Your task to perform on an android device: turn off translation in the chrome app Image 0: 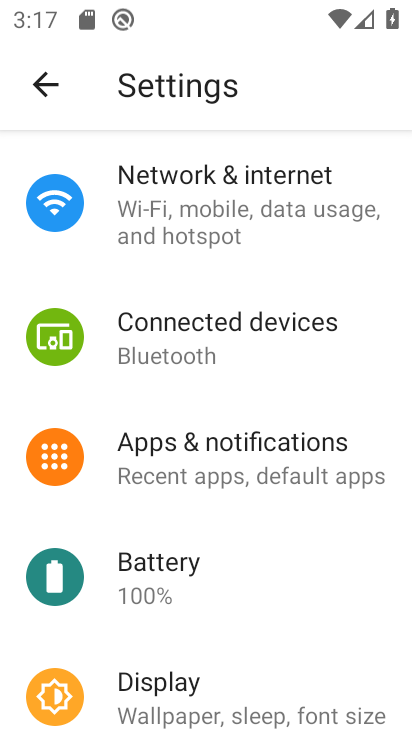
Step 0: press home button
Your task to perform on an android device: turn off translation in the chrome app Image 1: 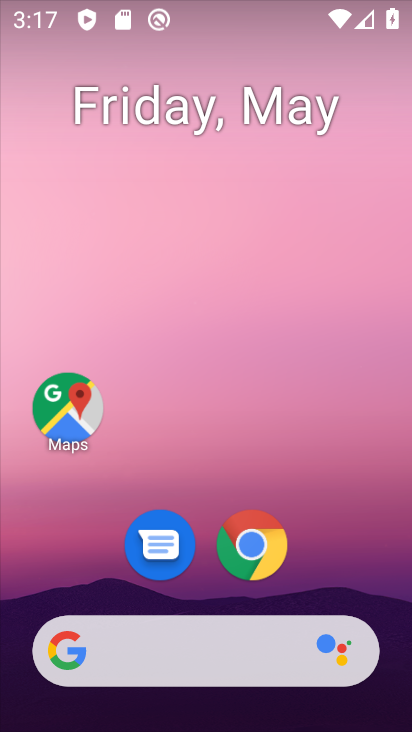
Step 1: click (259, 541)
Your task to perform on an android device: turn off translation in the chrome app Image 2: 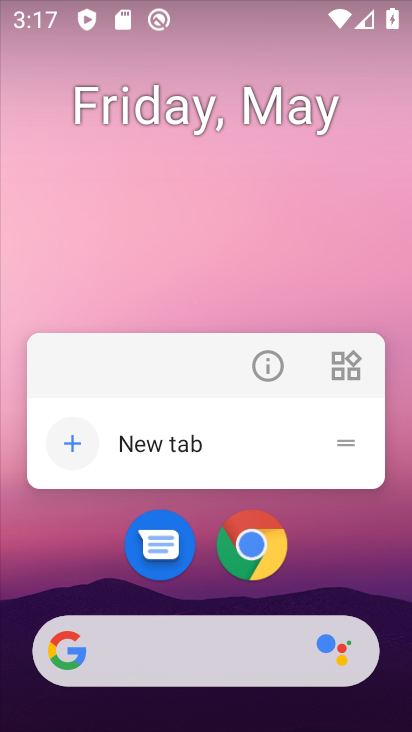
Step 2: click (253, 543)
Your task to perform on an android device: turn off translation in the chrome app Image 3: 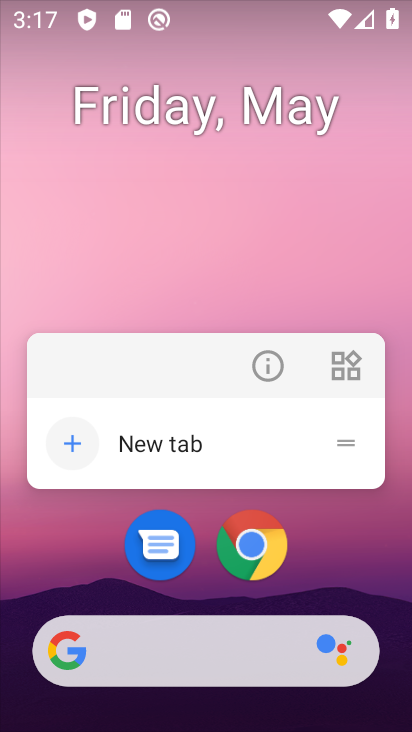
Step 3: click (251, 549)
Your task to perform on an android device: turn off translation in the chrome app Image 4: 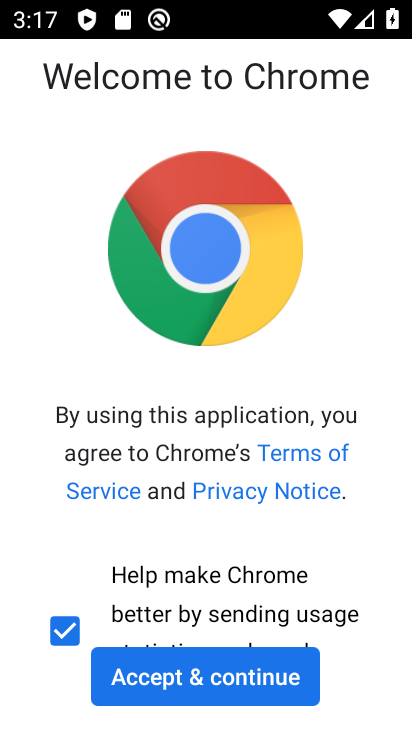
Step 4: click (175, 682)
Your task to perform on an android device: turn off translation in the chrome app Image 5: 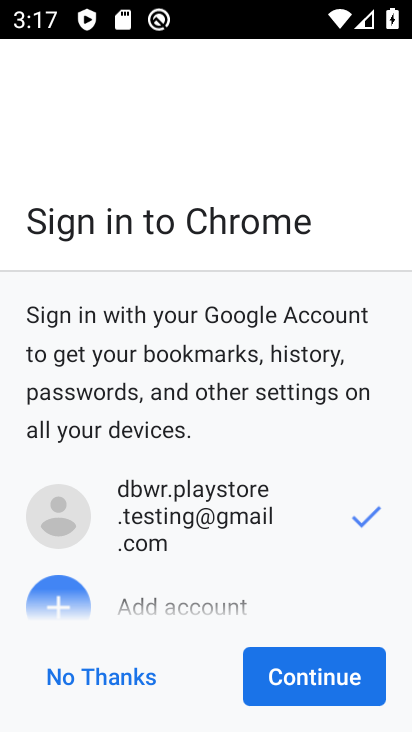
Step 5: click (296, 674)
Your task to perform on an android device: turn off translation in the chrome app Image 6: 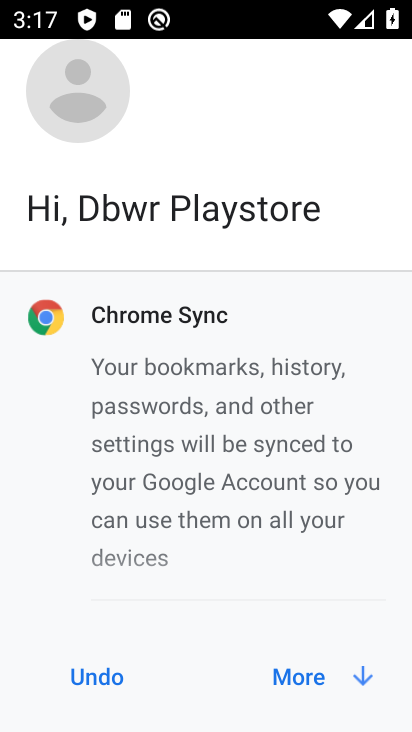
Step 6: click (298, 682)
Your task to perform on an android device: turn off translation in the chrome app Image 7: 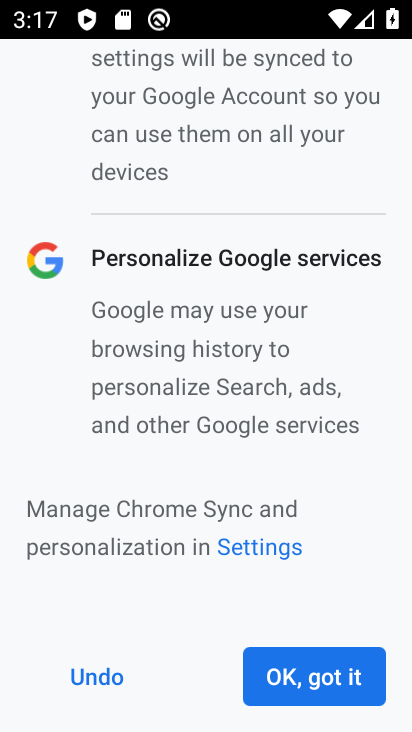
Step 7: click (298, 682)
Your task to perform on an android device: turn off translation in the chrome app Image 8: 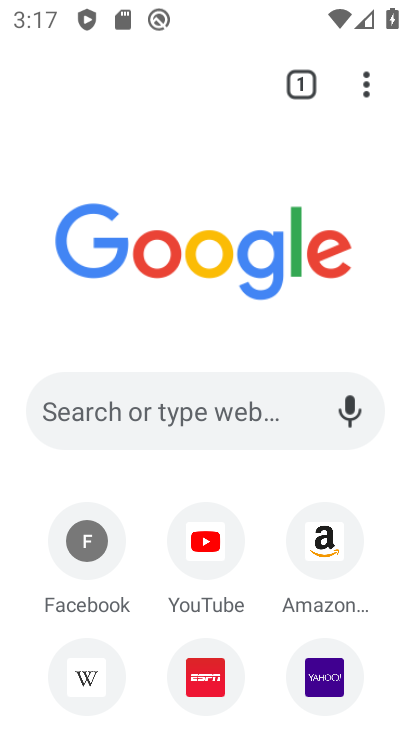
Step 8: drag from (365, 88) to (262, 577)
Your task to perform on an android device: turn off translation in the chrome app Image 9: 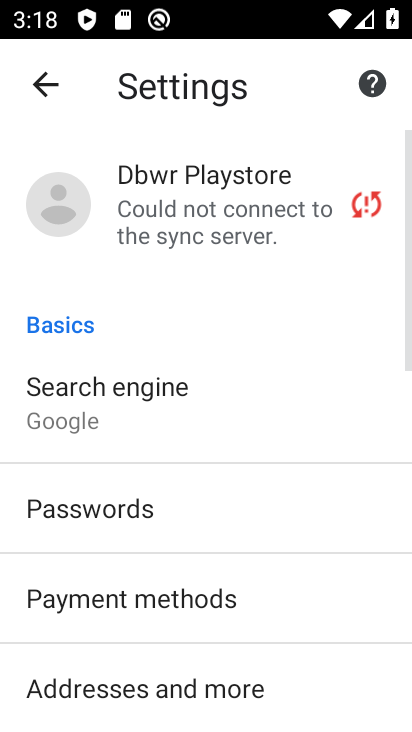
Step 9: drag from (271, 627) to (377, 77)
Your task to perform on an android device: turn off translation in the chrome app Image 10: 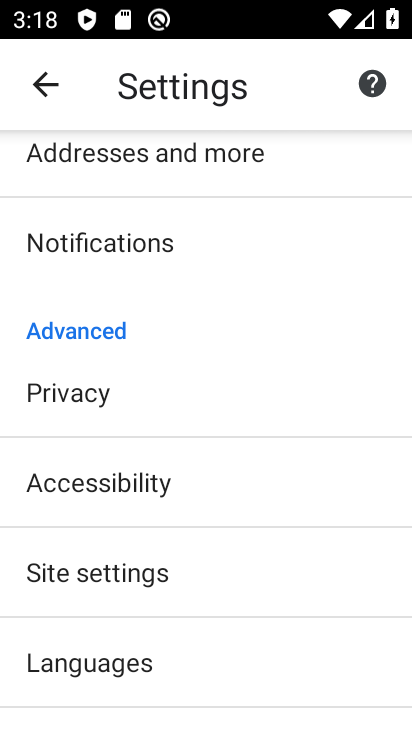
Step 10: drag from (201, 586) to (247, 324)
Your task to perform on an android device: turn off translation in the chrome app Image 11: 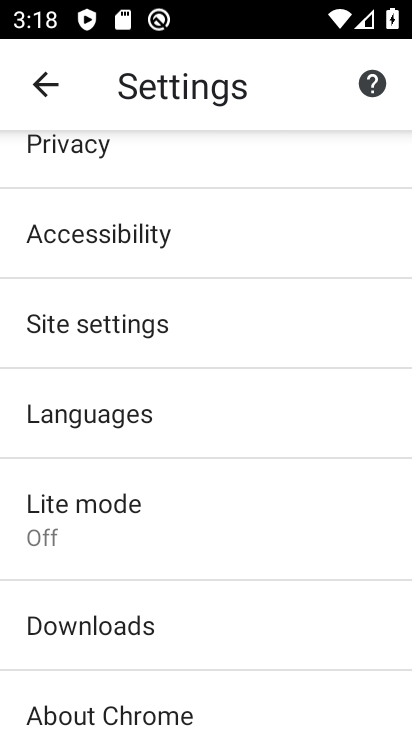
Step 11: click (132, 420)
Your task to perform on an android device: turn off translation in the chrome app Image 12: 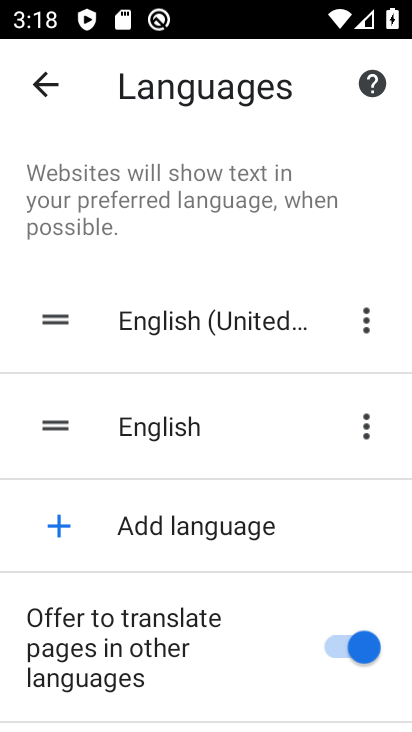
Step 12: drag from (265, 573) to (311, 308)
Your task to perform on an android device: turn off translation in the chrome app Image 13: 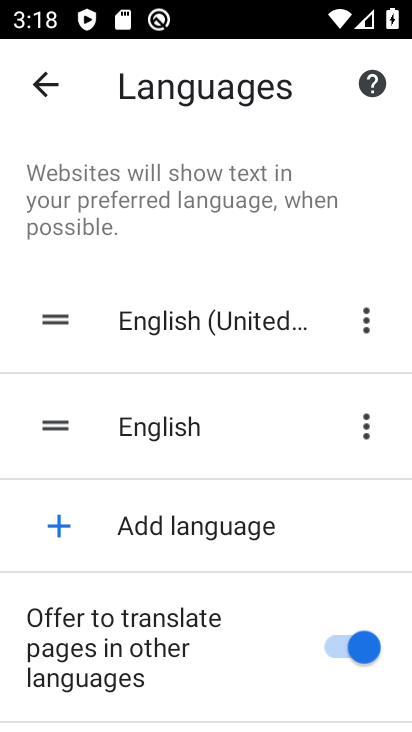
Step 13: click (336, 648)
Your task to perform on an android device: turn off translation in the chrome app Image 14: 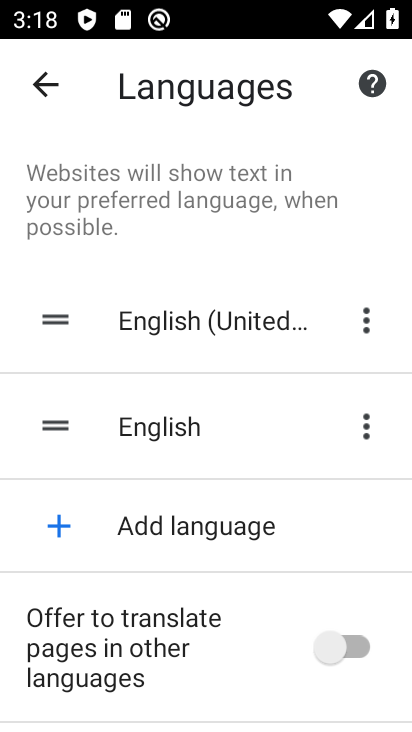
Step 14: task complete